Your task to perform on an android device: Show me the alarms in the clock app Image 0: 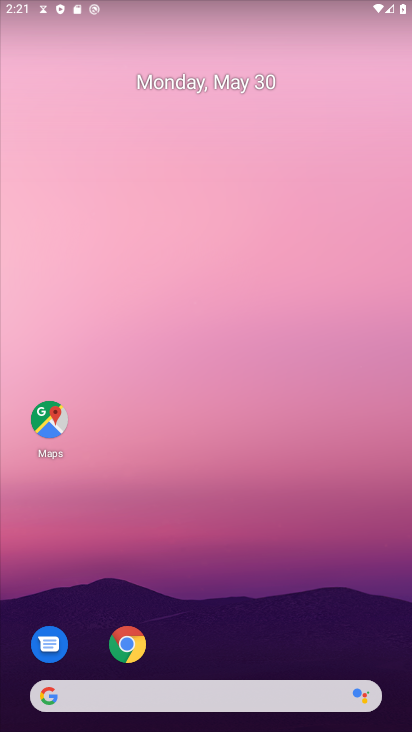
Step 0: drag from (283, 580) to (275, 170)
Your task to perform on an android device: Show me the alarms in the clock app Image 1: 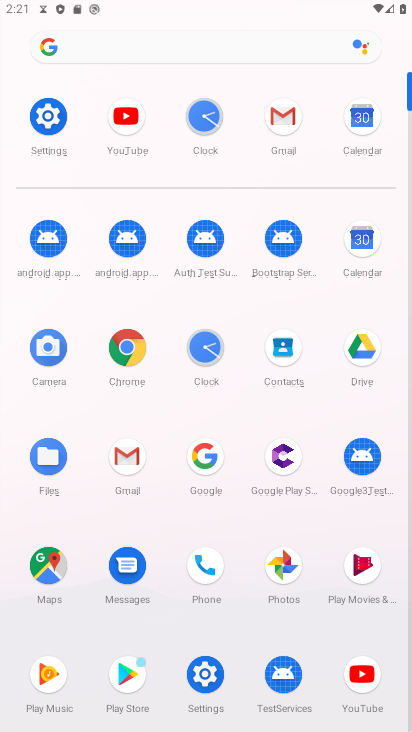
Step 1: click (187, 110)
Your task to perform on an android device: Show me the alarms in the clock app Image 2: 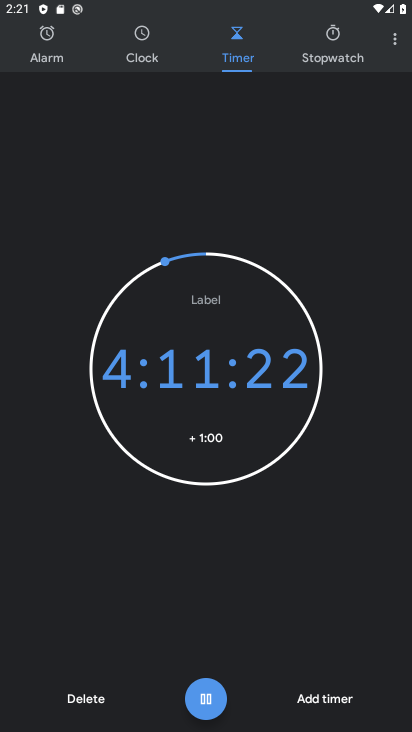
Step 2: click (52, 43)
Your task to perform on an android device: Show me the alarms in the clock app Image 3: 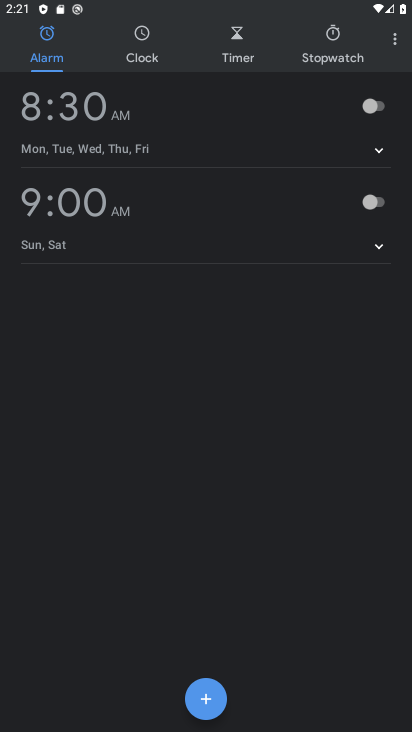
Step 3: task complete